Your task to perform on an android device: open app "Lyft - Rideshare, Bikes, Scooters & Transit" (install if not already installed) Image 0: 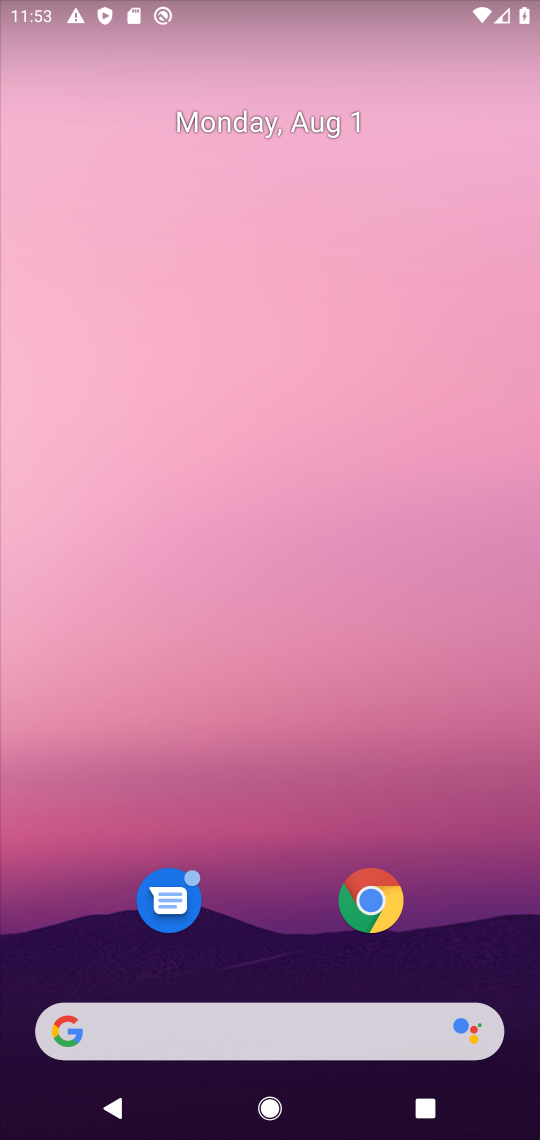
Step 0: drag from (279, 1015) to (314, 12)
Your task to perform on an android device: open app "Lyft - Rideshare, Bikes, Scooters & Transit" (install if not already installed) Image 1: 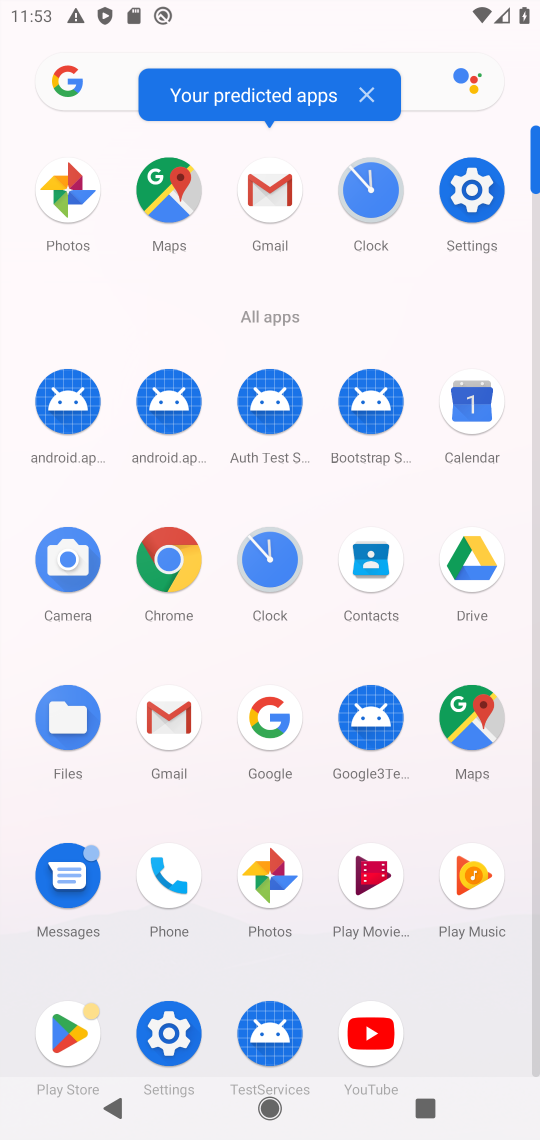
Step 1: click (73, 1030)
Your task to perform on an android device: open app "Lyft - Rideshare, Bikes, Scooters & Transit" (install if not already installed) Image 2: 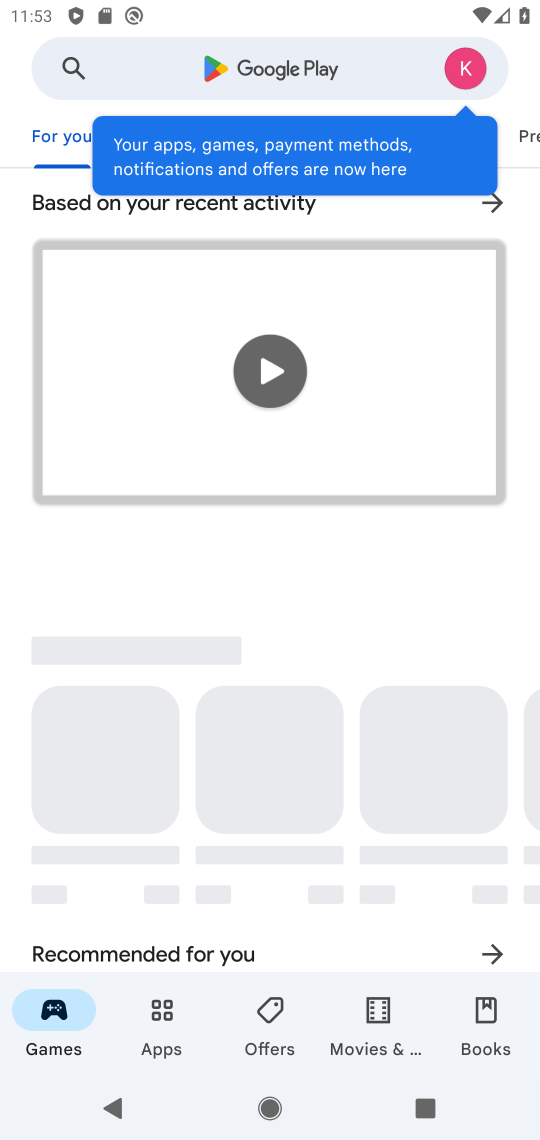
Step 2: click (282, 72)
Your task to perform on an android device: open app "Lyft - Rideshare, Bikes, Scooters & Transit" (install if not already installed) Image 3: 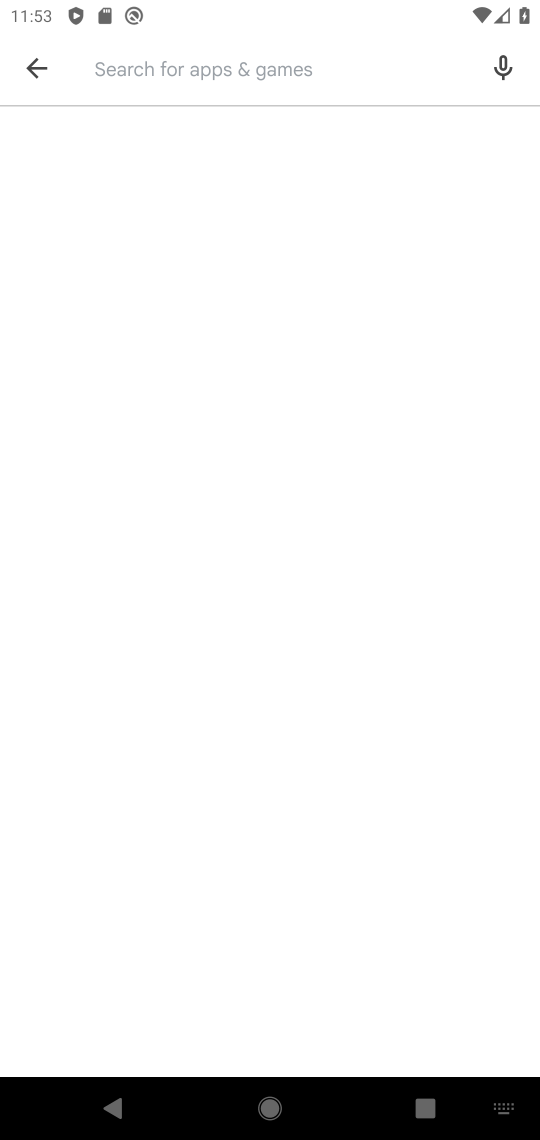
Step 3: type "Lyft - Rideshare, Bikes, Scooters & Transit"
Your task to perform on an android device: open app "Lyft - Rideshare, Bikes, Scooters & Transit" (install if not already installed) Image 4: 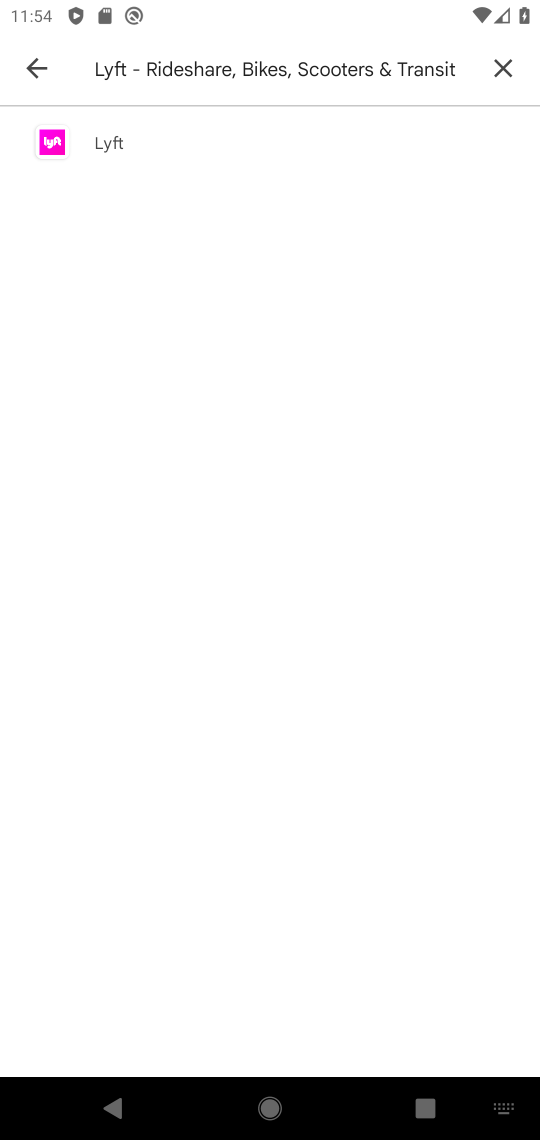
Step 4: click (117, 137)
Your task to perform on an android device: open app "Lyft - Rideshare, Bikes, Scooters & Transit" (install if not already installed) Image 5: 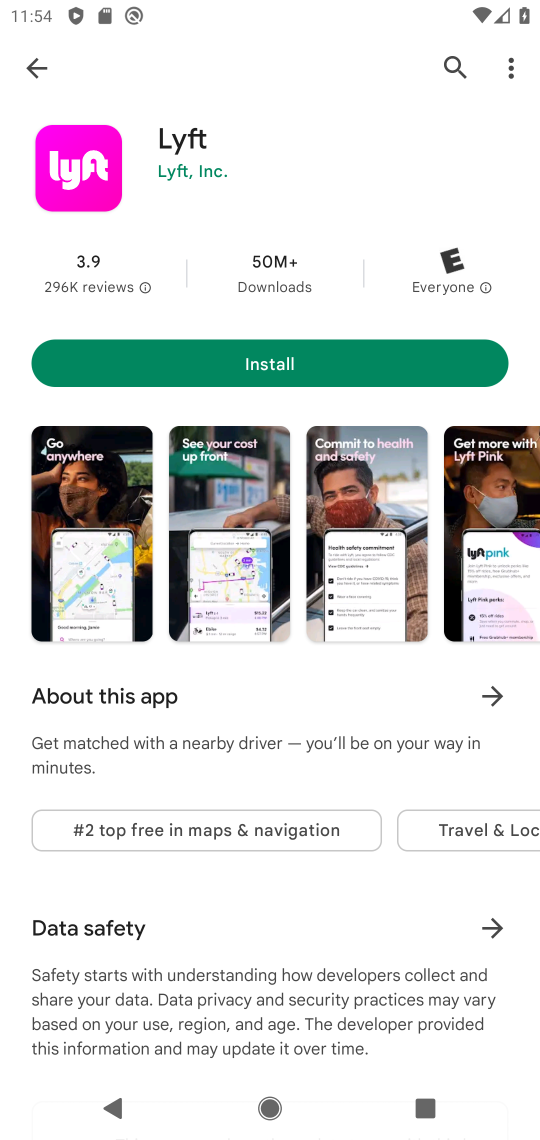
Step 5: click (315, 361)
Your task to perform on an android device: open app "Lyft - Rideshare, Bikes, Scooters & Transit" (install if not already installed) Image 6: 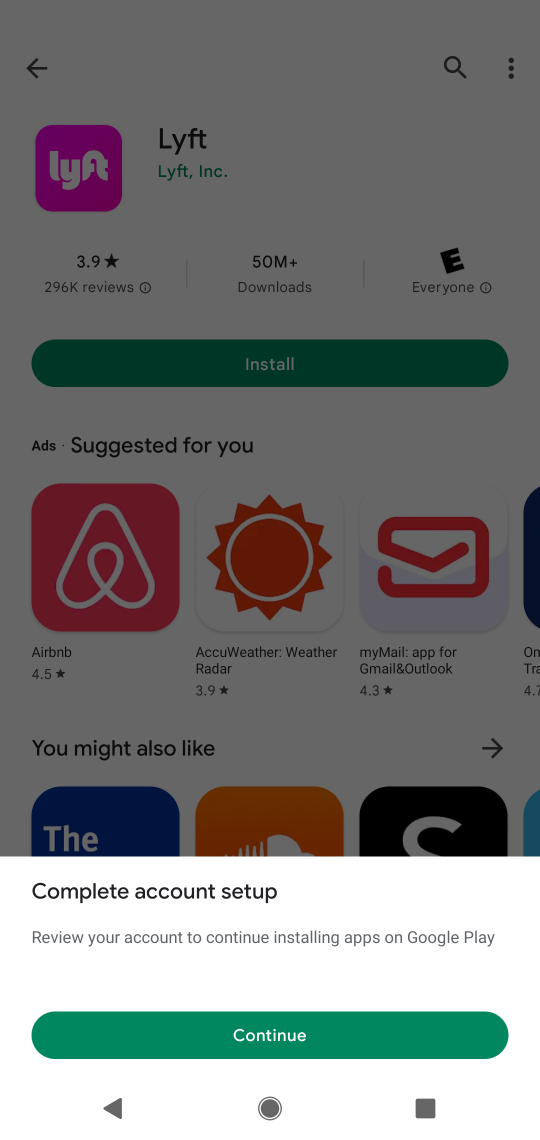
Step 6: click (232, 1038)
Your task to perform on an android device: open app "Lyft - Rideshare, Bikes, Scooters & Transit" (install if not already installed) Image 7: 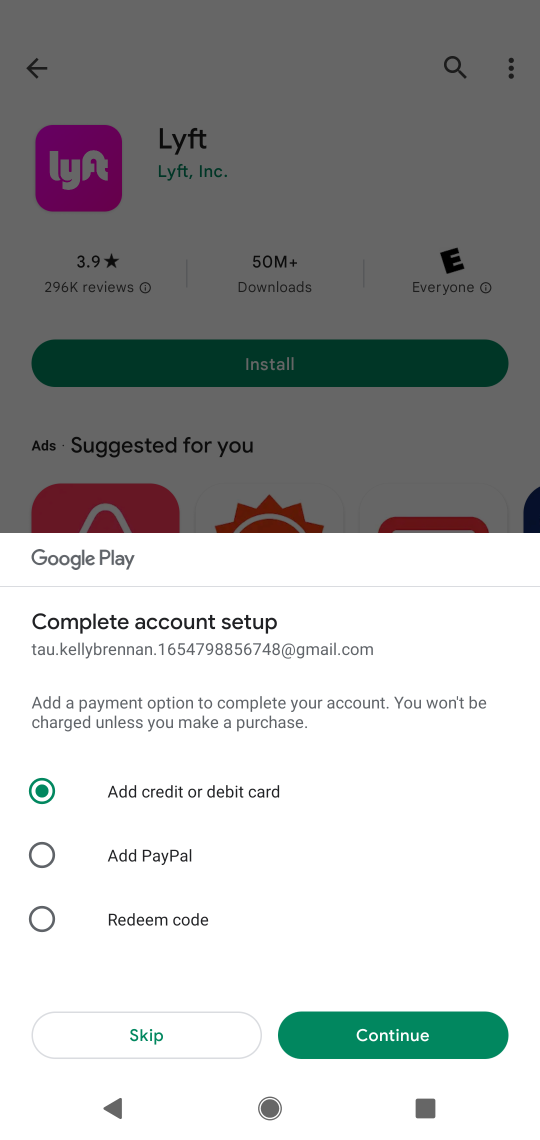
Step 7: click (169, 1038)
Your task to perform on an android device: open app "Lyft - Rideshare, Bikes, Scooters & Transit" (install if not already installed) Image 8: 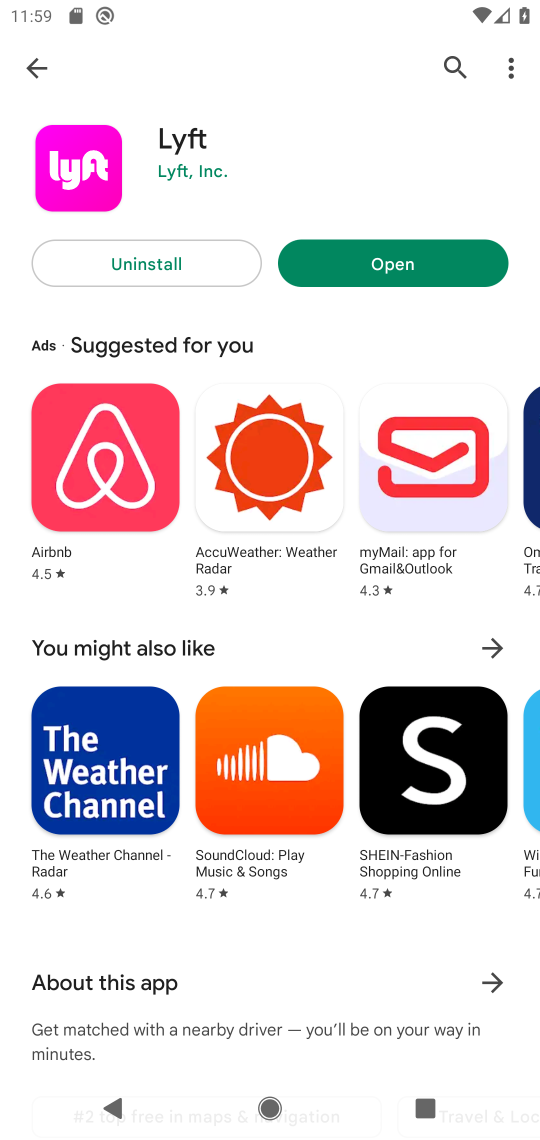
Step 8: click (385, 243)
Your task to perform on an android device: open app "Lyft - Rideshare, Bikes, Scooters & Transit" (install if not already installed) Image 9: 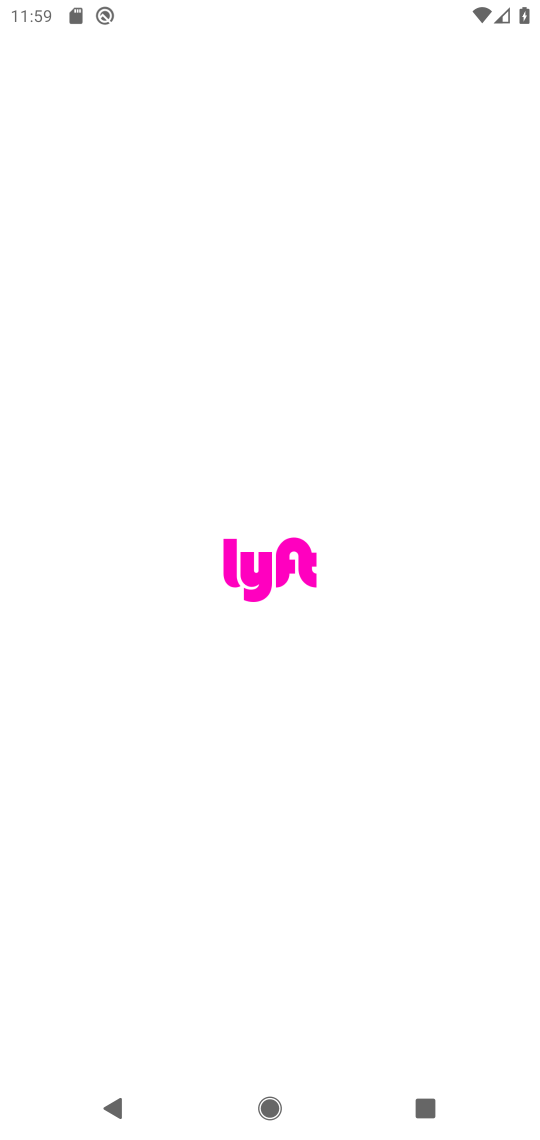
Step 9: task complete